Your task to perform on an android device: open app "Adobe Express: Graphic Design" Image 0: 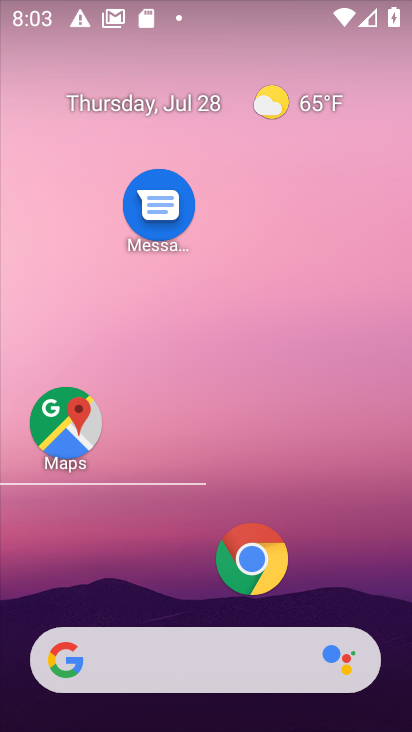
Step 0: drag from (172, 566) to (213, 210)
Your task to perform on an android device: open app "Adobe Express: Graphic Design" Image 1: 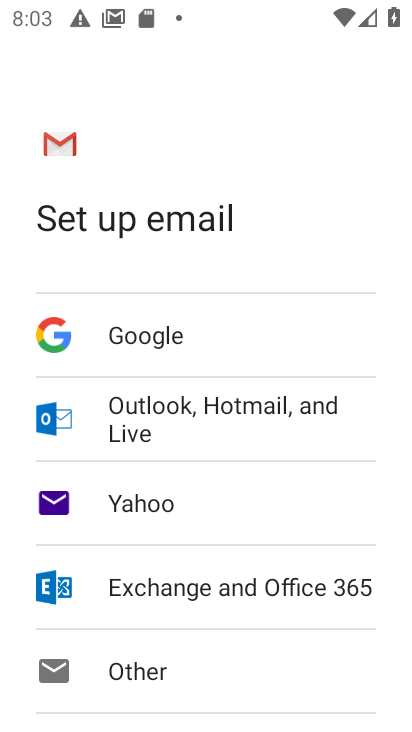
Step 1: press home button
Your task to perform on an android device: open app "Adobe Express: Graphic Design" Image 2: 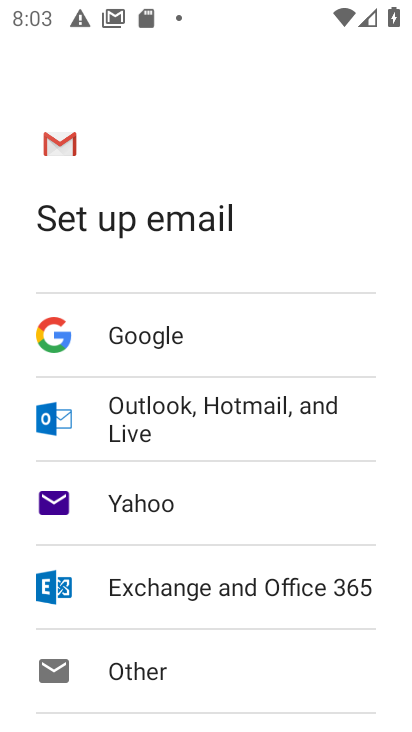
Step 2: press home button
Your task to perform on an android device: open app "Adobe Express: Graphic Design" Image 3: 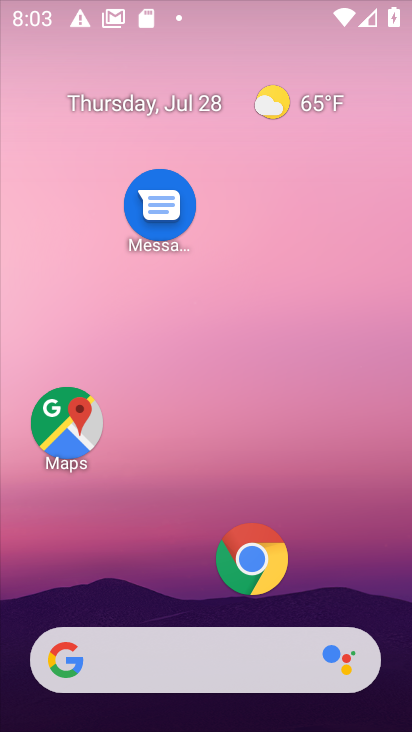
Step 3: drag from (208, 664) to (291, 239)
Your task to perform on an android device: open app "Adobe Express: Graphic Design" Image 4: 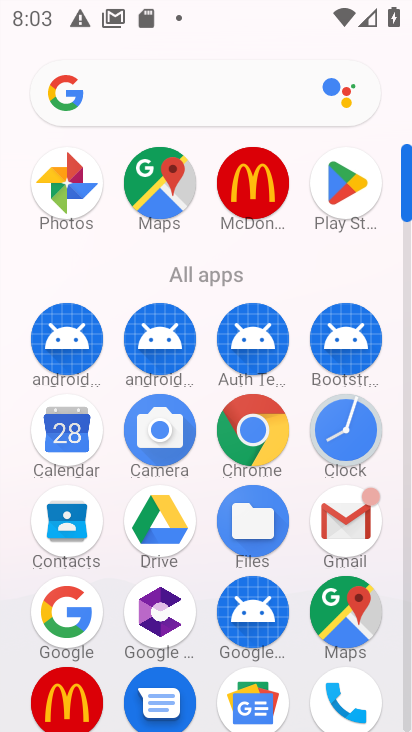
Step 4: click (356, 202)
Your task to perform on an android device: open app "Adobe Express: Graphic Design" Image 5: 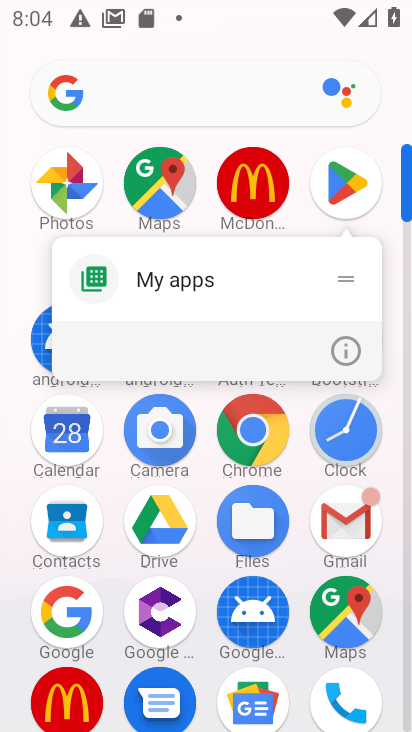
Step 5: click (352, 356)
Your task to perform on an android device: open app "Adobe Express: Graphic Design" Image 6: 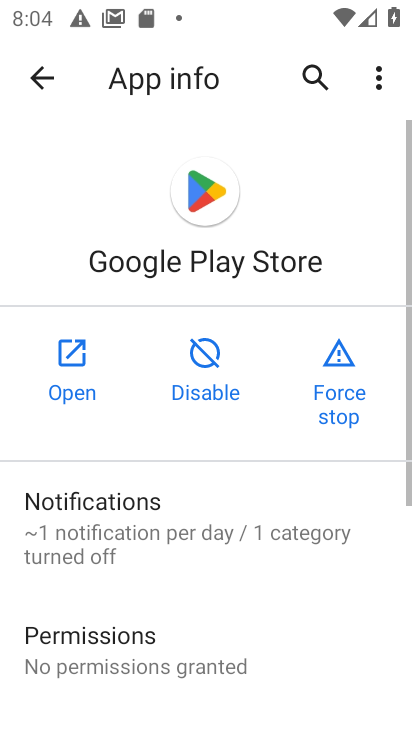
Step 6: click (55, 353)
Your task to perform on an android device: open app "Adobe Express: Graphic Design" Image 7: 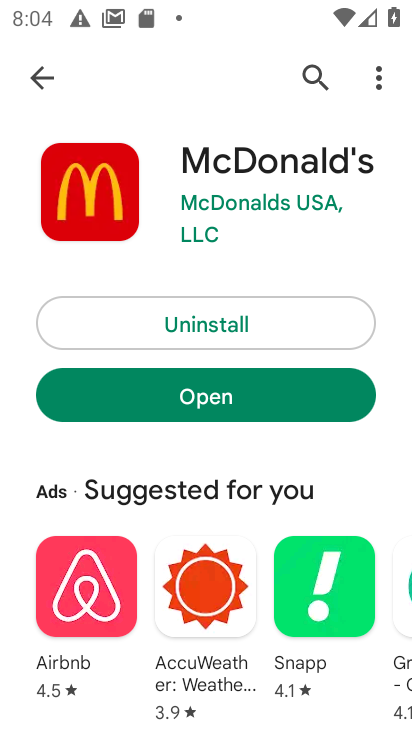
Step 7: click (211, 393)
Your task to perform on an android device: open app "Adobe Express: Graphic Design" Image 8: 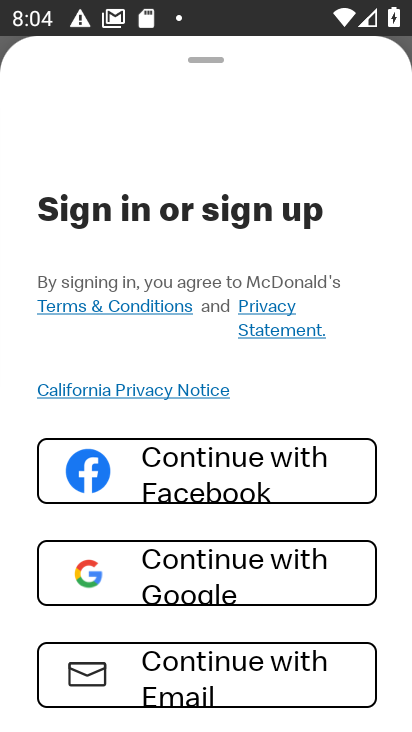
Step 8: press back button
Your task to perform on an android device: open app "Adobe Express: Graphic Design" Image 9: 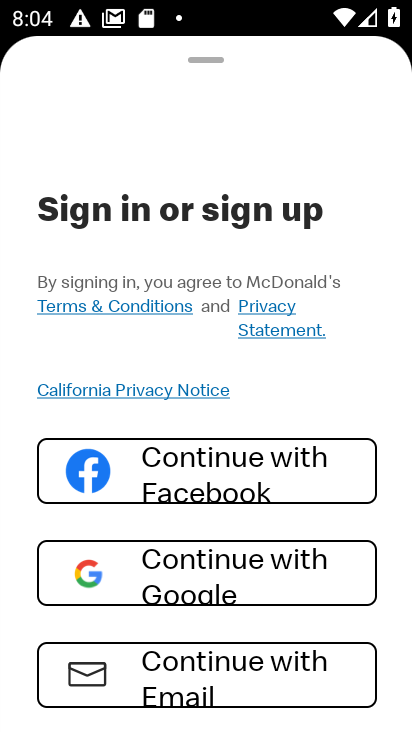
Step 9: press back button
Your task to perform on an android device: open app "Adobe Express: Graphic Design" Image 10: 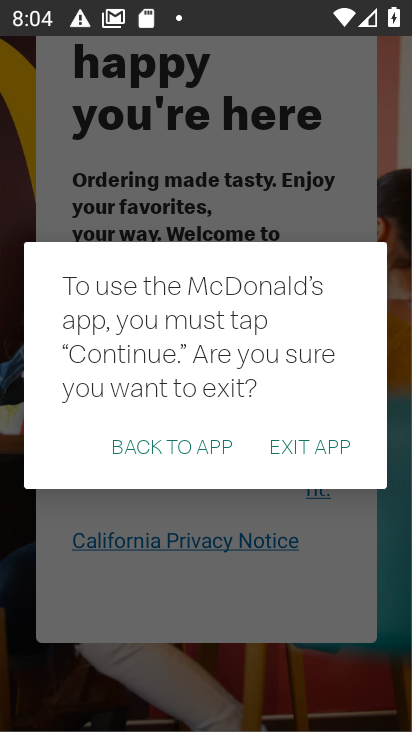
Step 10: press home button
Your task to perform on an android device: open app "Adobe Express: Graphic Design" Image 11: 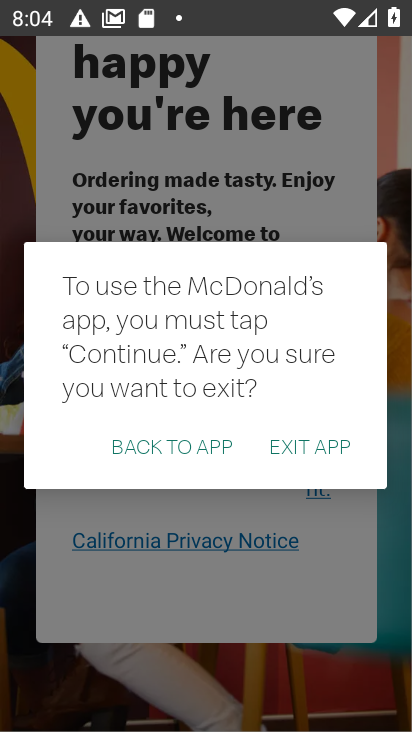
Step 11: drag from (245, 679) to (279, 265)
Your task to perform on an android device: open app "Adobe Express: Graphic Design" Image 12: 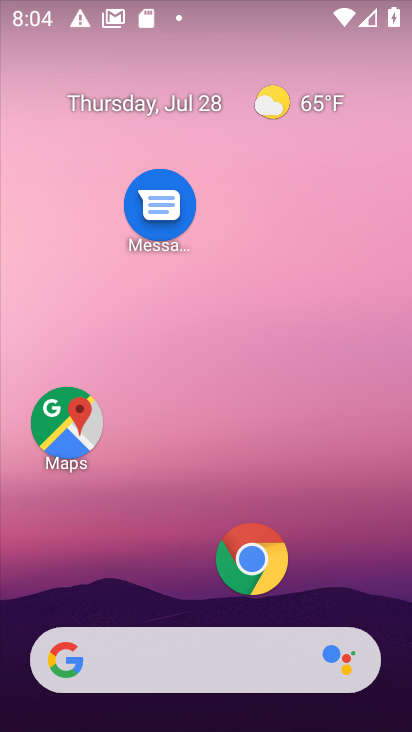
Step 12: drag from (185, 563) to (209, 215)
Your task to perform on an android device: open app "Adobe Express: Graphic Design" Image 13: 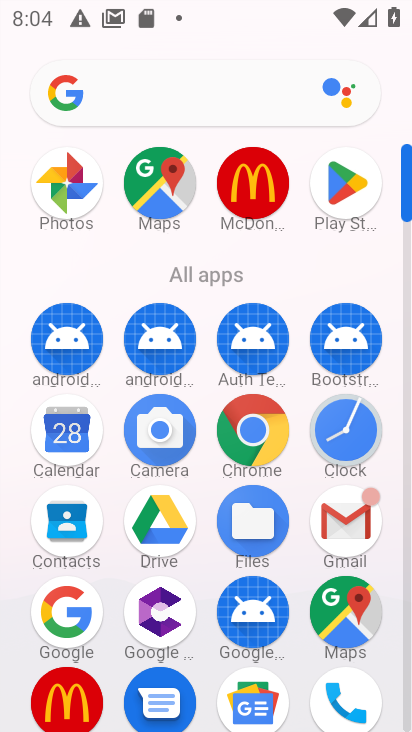
Step 13: click (343, 183)
Your task to perform on an android device: open app "Adobe Express: Graphic Design" Image 14: 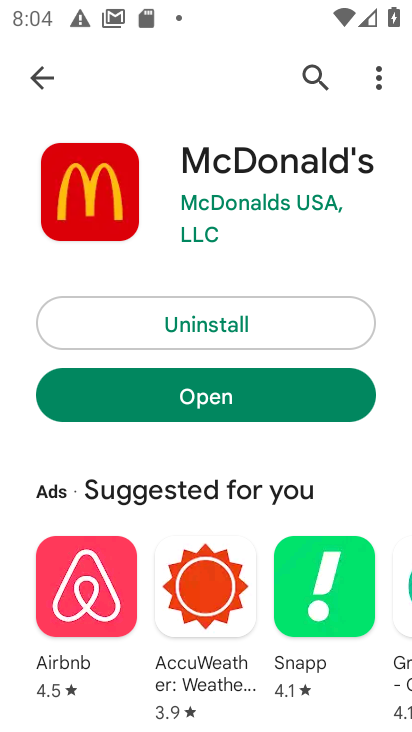
Step 14: click (317, 70)
Your task to perform on an android device: open app "Adobe Express: Graphic Design" Image 15: 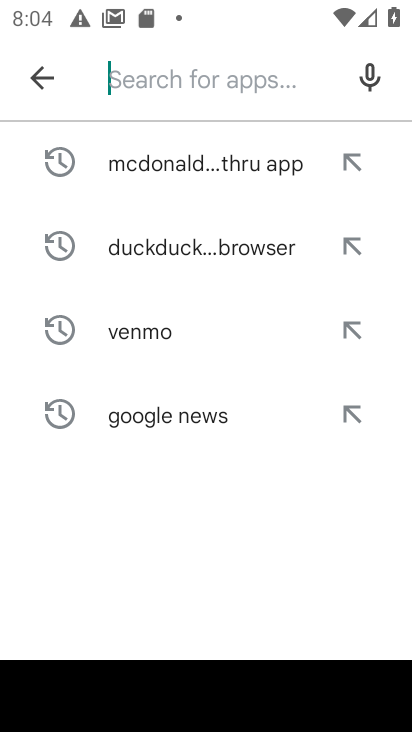
Step 15: type "Adobe Express: Graphic Design"
Your task to perform on an android device: open app "Adobe Express: Graphic Design" Image 16: 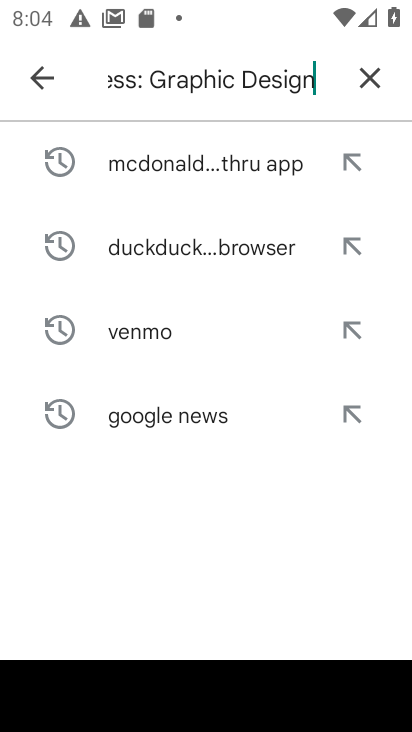
Step 16: type ""
Your task to perform on an android device: open app "Adobe Express: Graphic Design" Image 17: 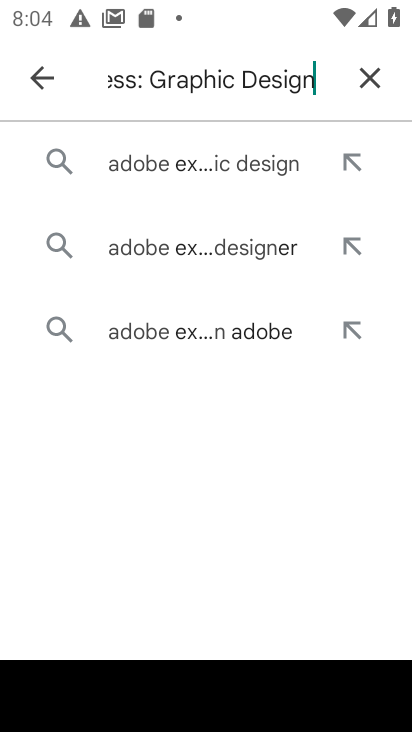
Step 17: click (204, 170)
Your task to perform on an android device: open app "Adobe Express: Graphic Design" Image 18: 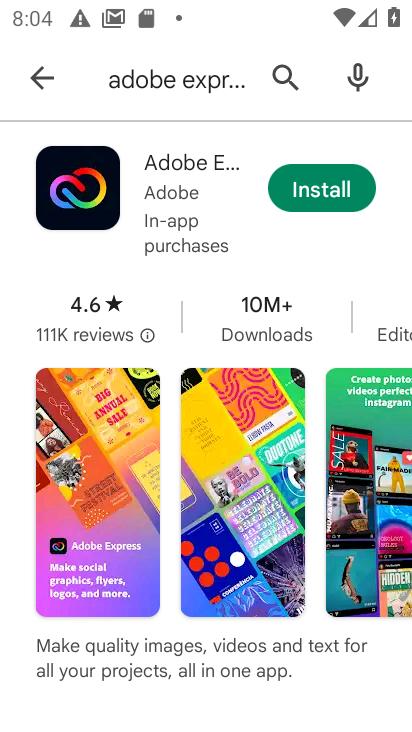
Step 18: click (193, 176)
Your task to perform on an android device: open app "Adobe Express: Graphic Design" Image 19: 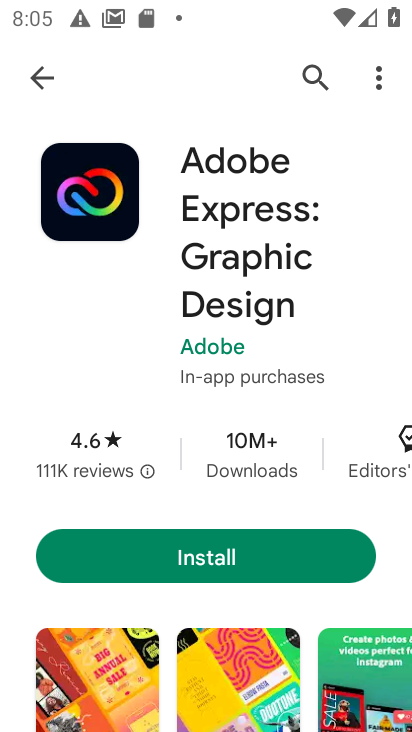
Step 19: task complete